Your task to perform on an android device: Open Yahoo.com Image 0: 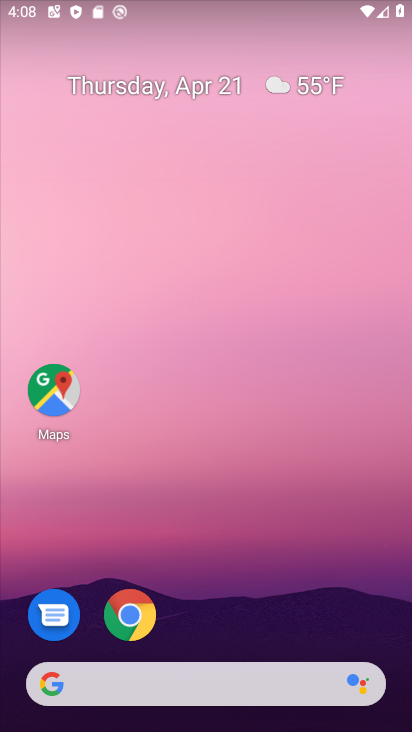
Step 0: drag from (300, 557) to (170, 12)
Your task to perform on an android device: Open Yahoo.com Image 1: 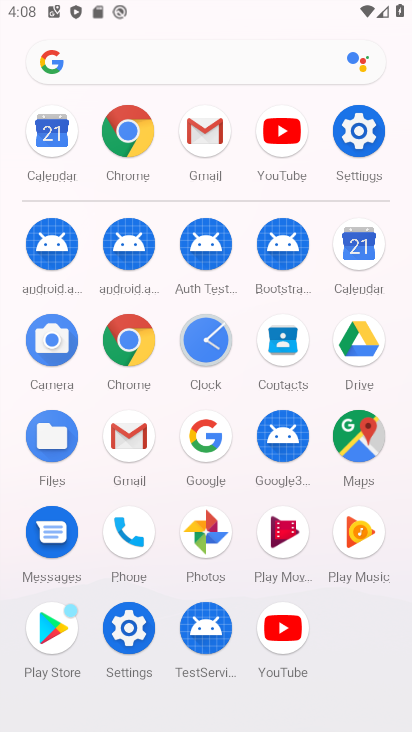
Step 1: click (129, 336)
Your task to perform on an android device: Open Yahoo.com Image 2: 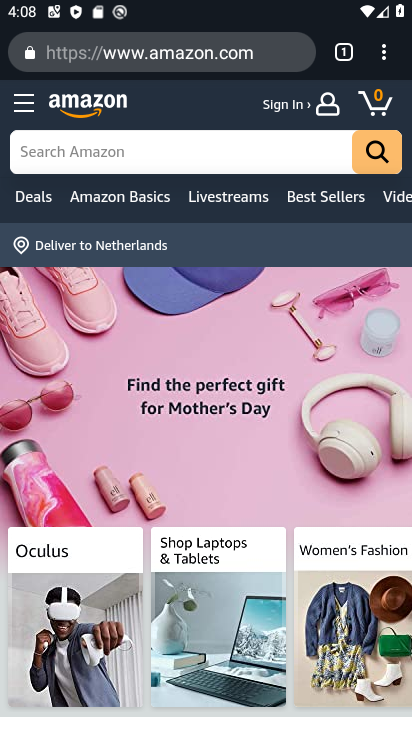
Step 2: click (184, 54)
Your task to perform on an android device: Open Yahoo.com Image 3: 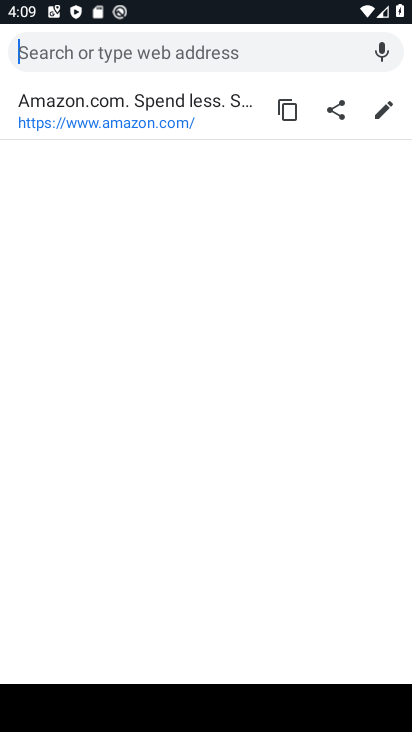
Step 3: type "Yahoo.com"
Your task to perform on an android device: Open Yahoo.com Image 4: 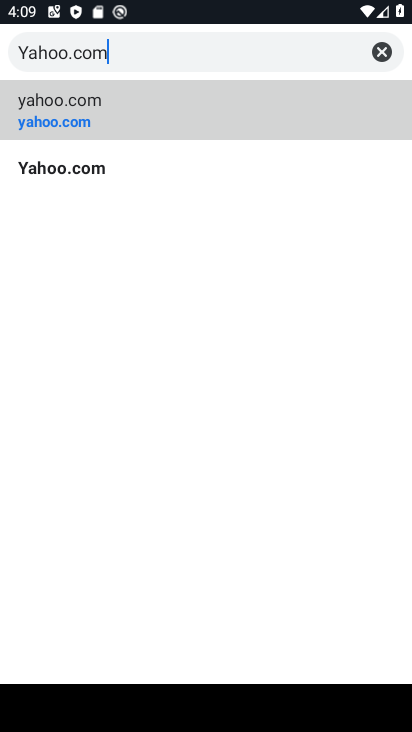
Step 4: type ""
Your task to perform on an android device: Open Yahoo.com Image 5: 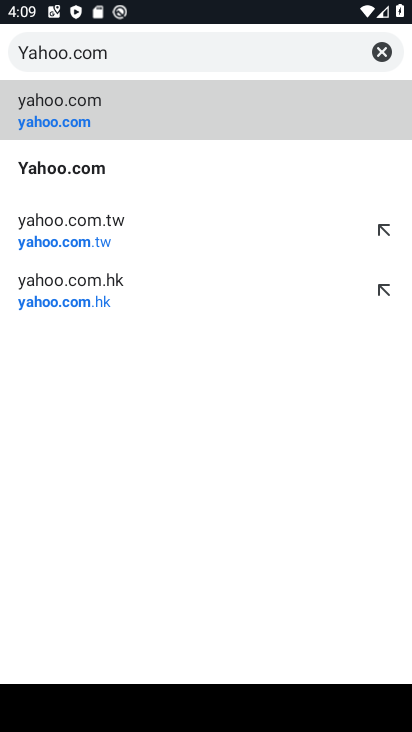
Step 5: click (106, 112)
Your task to perform on an android device: Open Yahoo.com Image 6: 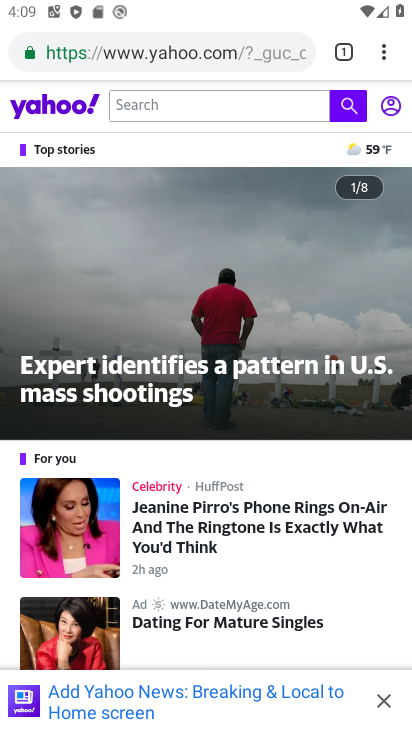
Step 6: task complete